Your task to perform on an android device: What's on my calendar today? Image 0: 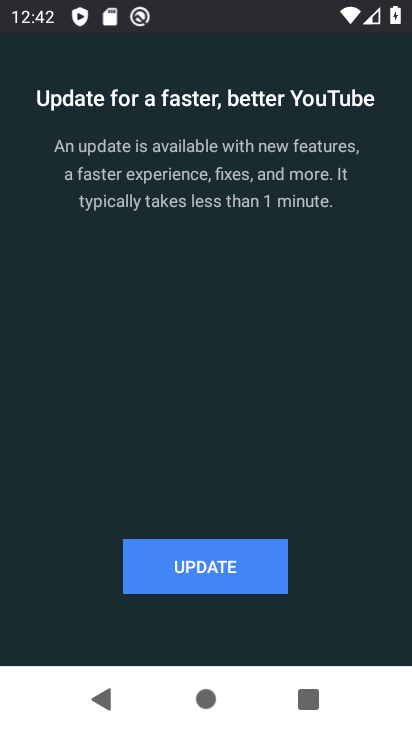
Step 0: press back button
Your task to perform on an android device: What's on my calendar today? Image 1: 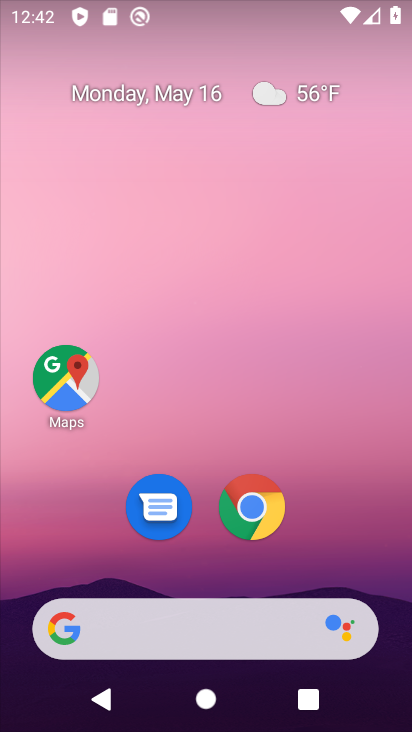
Step 1: drag from (189, 571) to (221, 158)
Your task to perform on an android device: What's on my calendar today? Image 2: 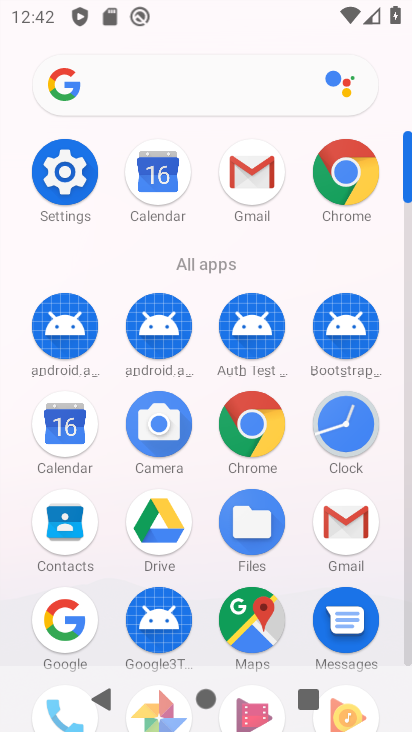
Step 2: click (73, 450)
Your task to perform on an android device: What's on my calendar today? Image 3: 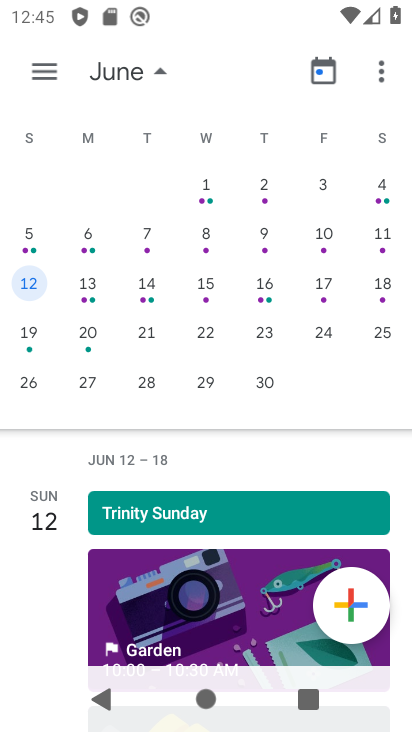
Step 3: click (19, 292)
Your task to perform on an android device: What's on my calendar today? Image 4: 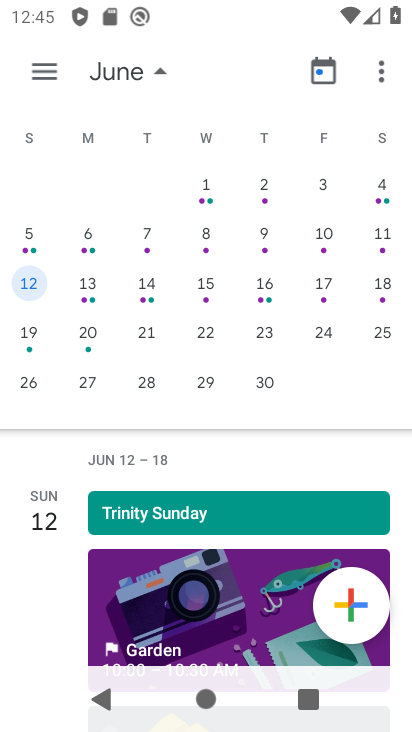
Step 4: task complete